Your task to perform on an android device: Open calendar and show me the fourth week of next month Image 0: 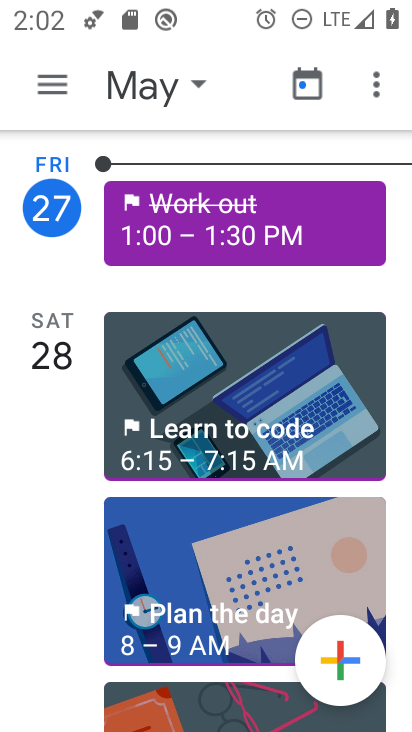
Step 0: press home button
Your task to perform on an android device: Open calendar and show me the fourth week of next month Image 1: 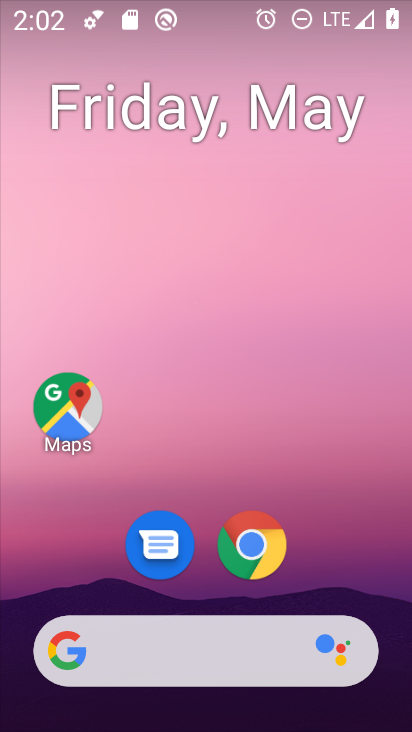
Step 1: drag from (319, 556) to (311, 245)
Your task to perform on an android device: Open calendar and show me the fourth week of next month Image 2: 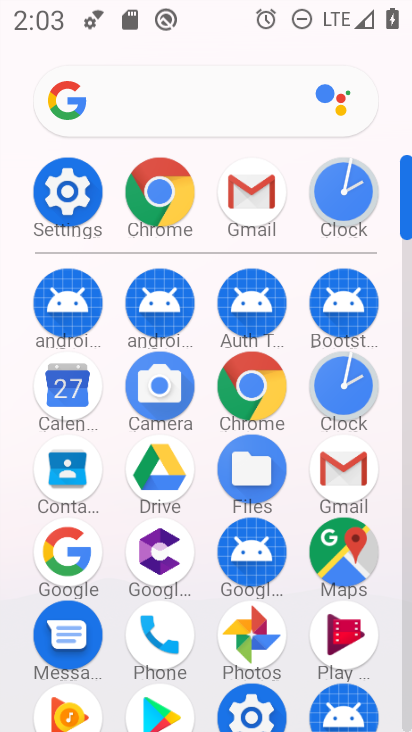
Step 2: click (63, 376)
Your task to perform on an android device: Open calendar and show me the fourth week of next month Image 3: 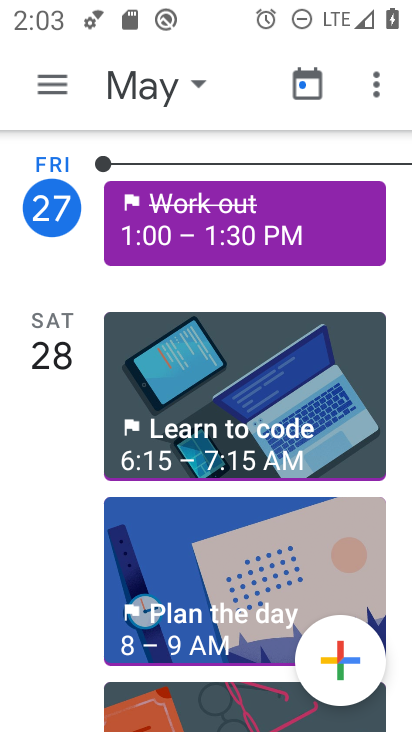
Step 3: click (46, 81)
Your task to perform on an android device: Open calendar and show me the fourth week of next month Image 4: 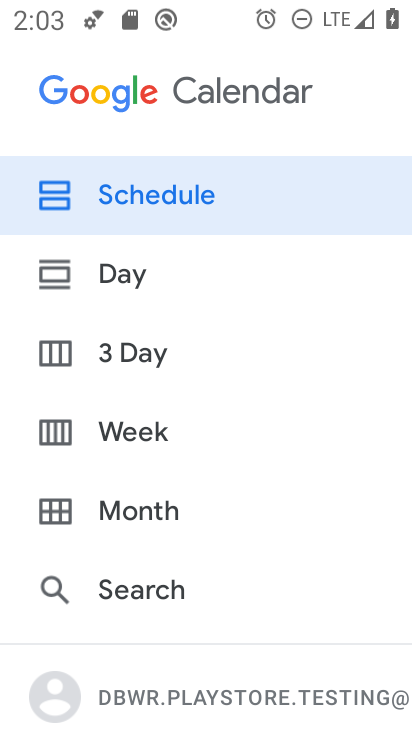
Step 4: click (152, 504)
Your task to perform on an android device: Open calendar and show me the fourth week of next month Image 5: 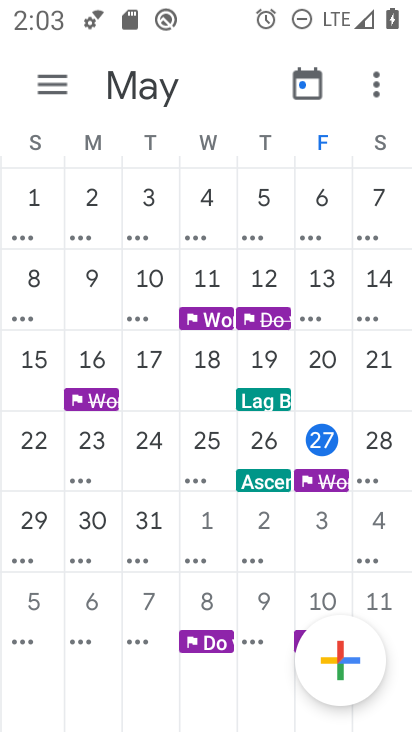
Step 5: task complete